Your task to perform on an android device: set default search engine in the chrome app Image 0: 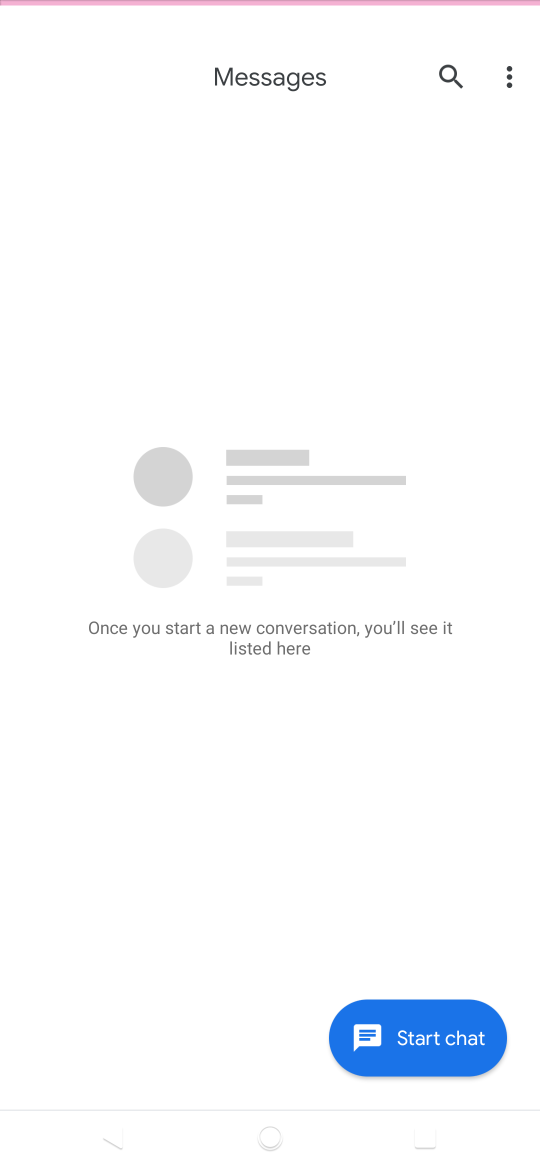
Step 0: press home button
Your task to perform on an android device: set default search engine in the chrome app Image 1: 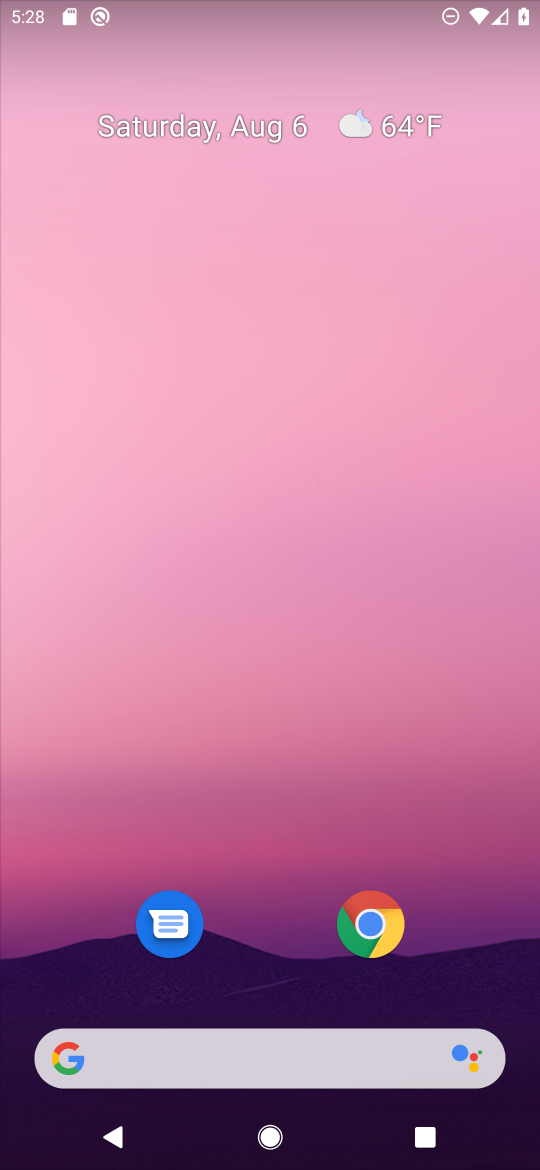
Step 1: click (369, 925)
Your task to perform on an android device: set default search engine in the chrome app Image 2: 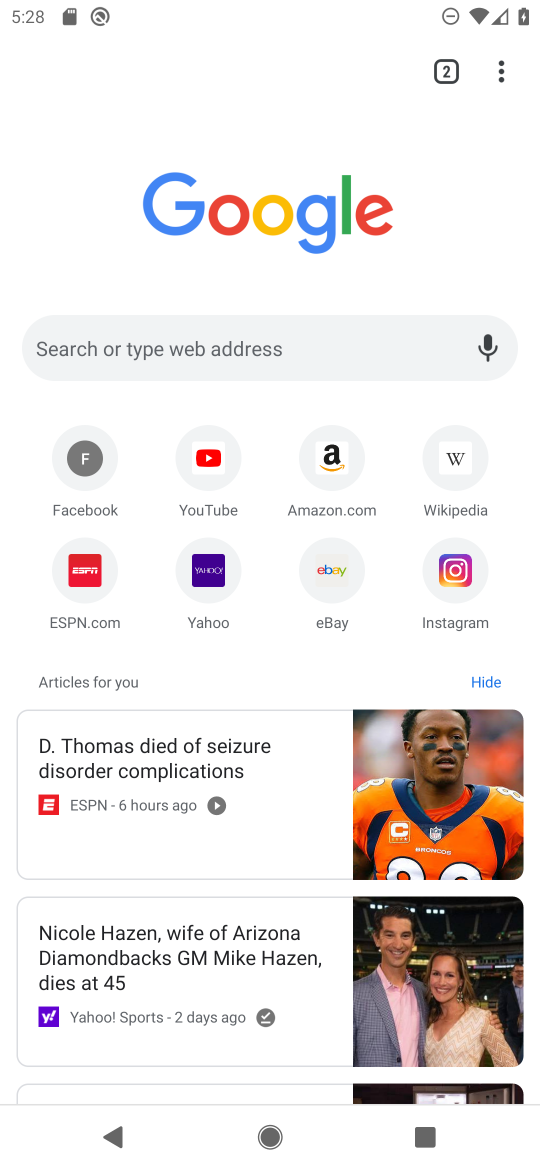
Step 2: click (506, 64)
Your task to perform on an android device: set default search engine in the chrome app Image 3: 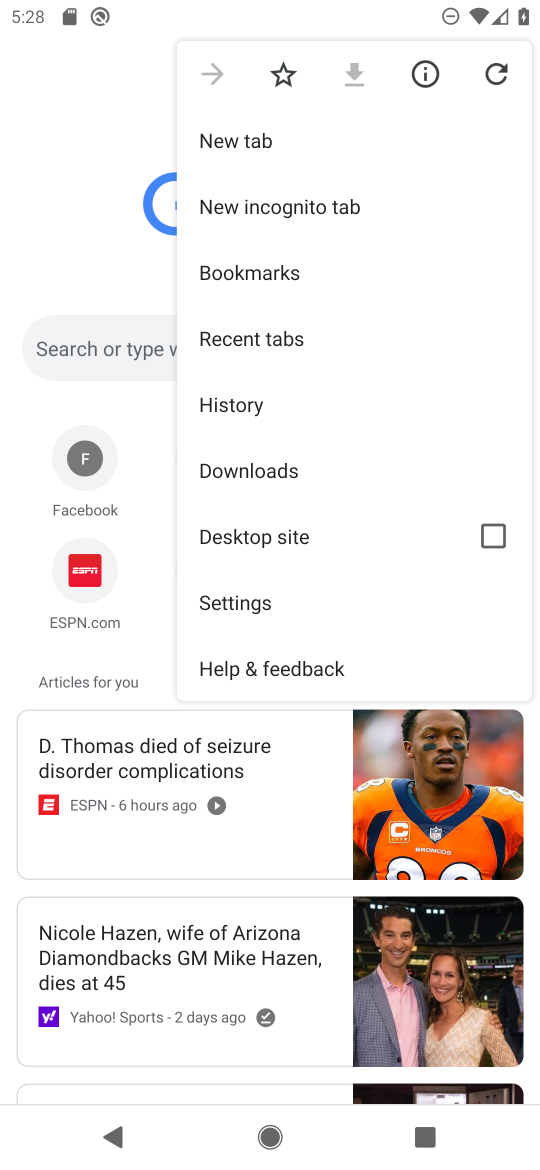
Step 3: click (230, 603)
Your task to perform on an android device: set default search engine in the chrome app Image 4: 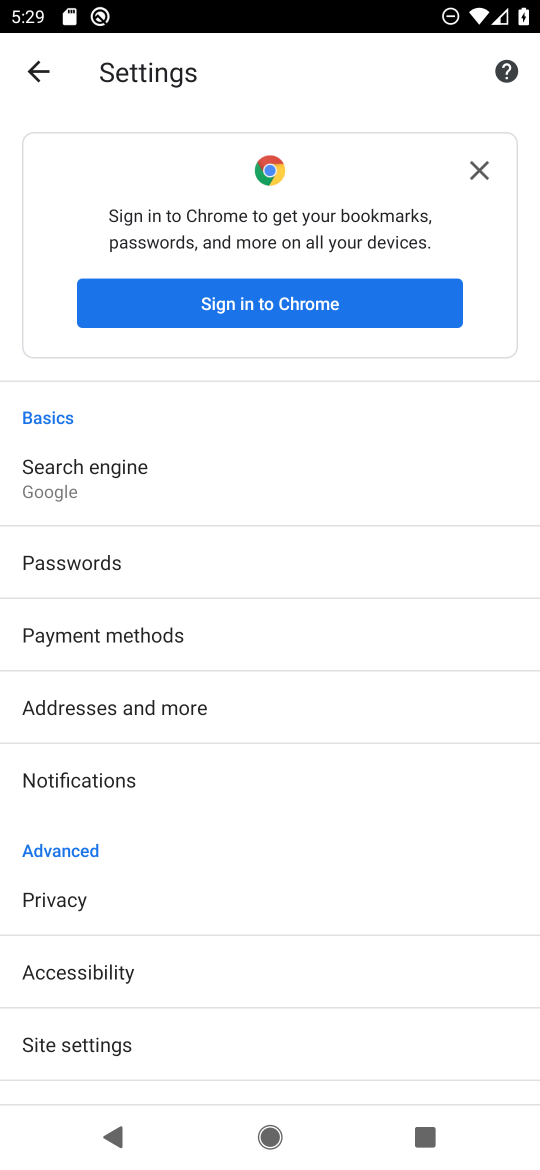
Step 4: click (75, 464)
Your task to perform on an android device: set default search engine in the chrome app Image 5: 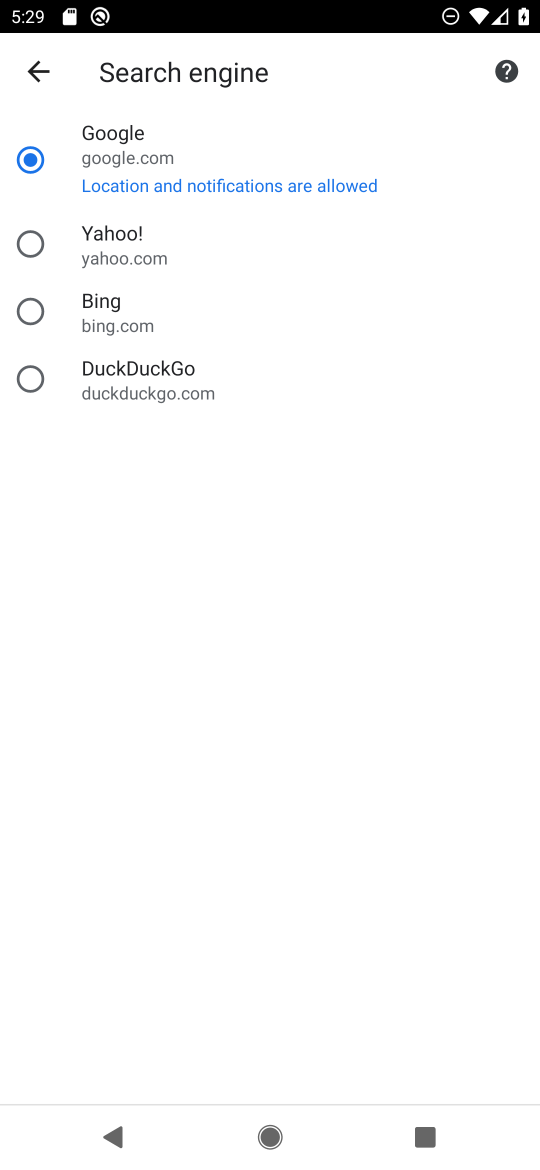
Step 5: task complete